Your task to perform on an android device: open chrome privacy settings Image 0: 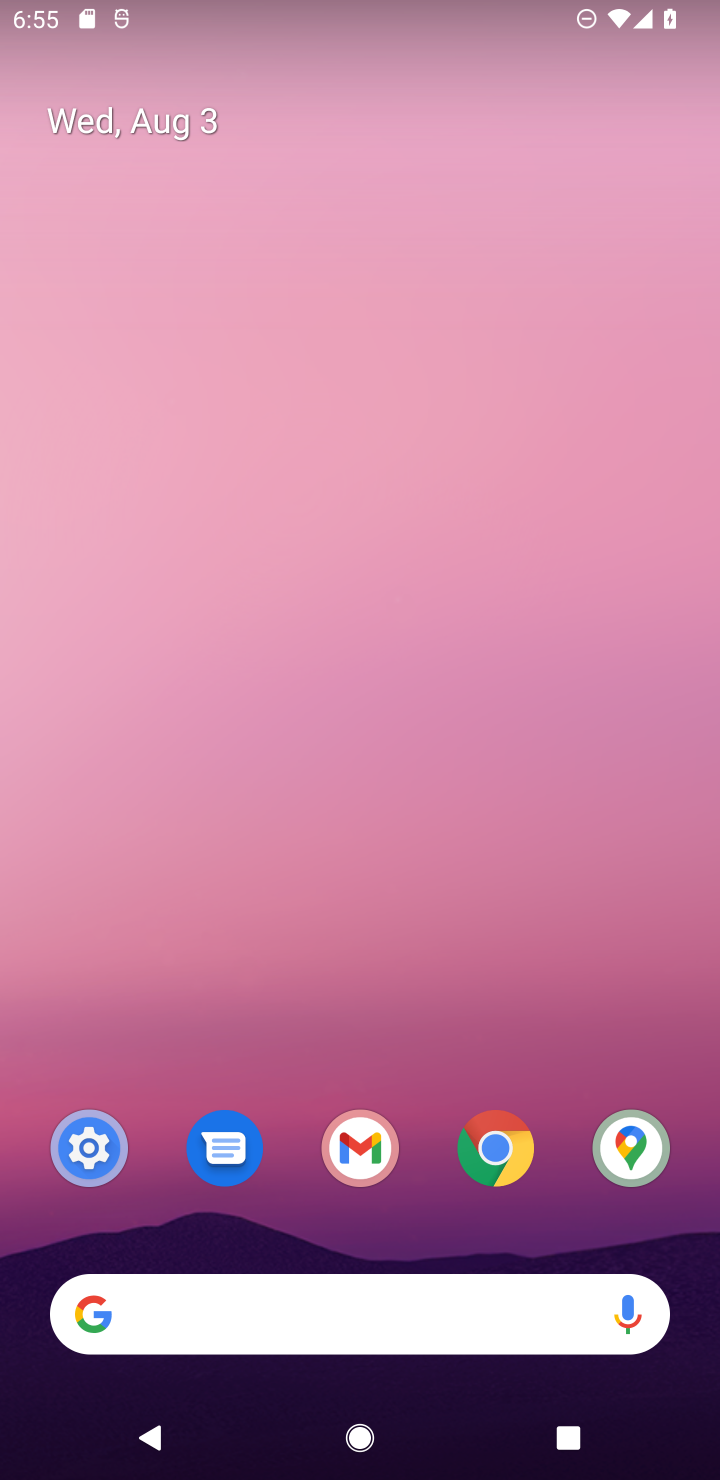
Step 0: click (490, 1134)
Your task to perform on an android device: open chrome privacy settings Image 1: 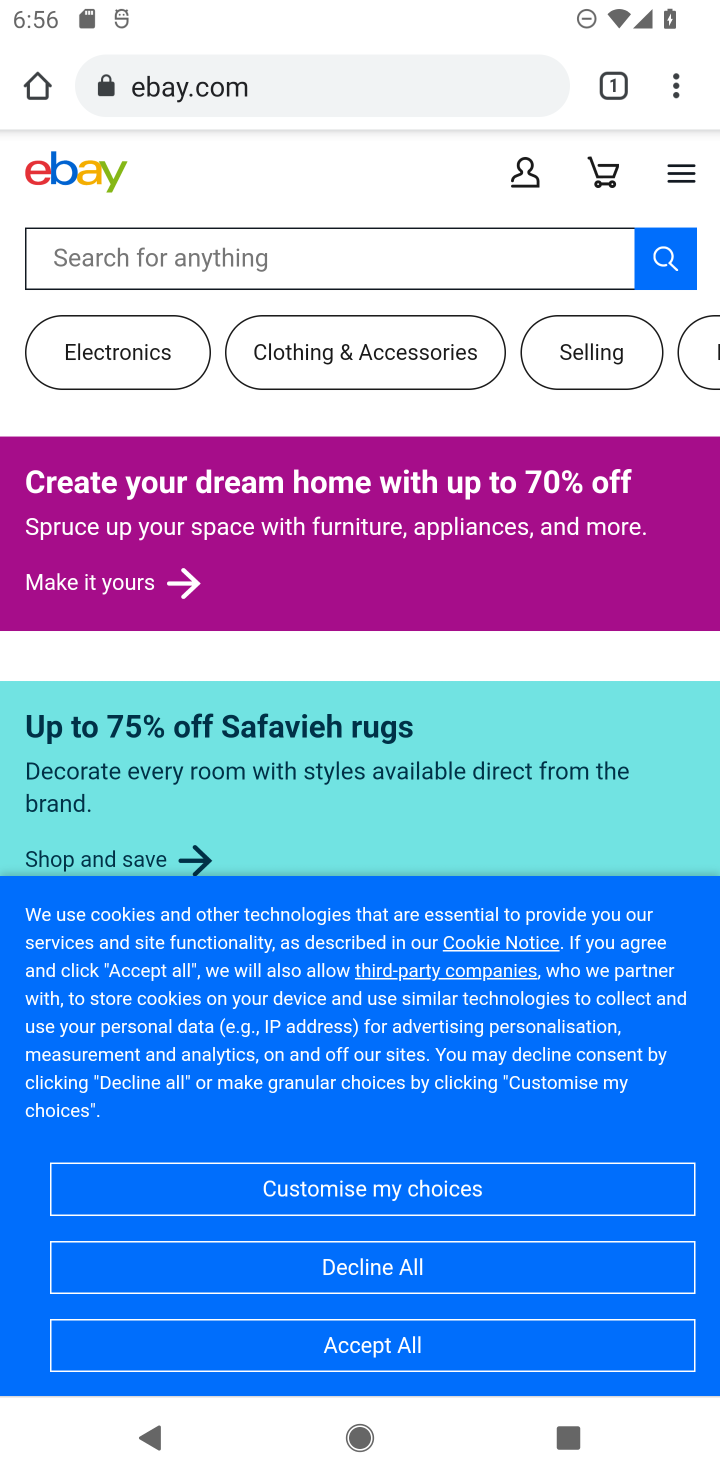
Step 1: click (669, 96)
Your task to perform on an android device: open chrome privacy settings Image 2: 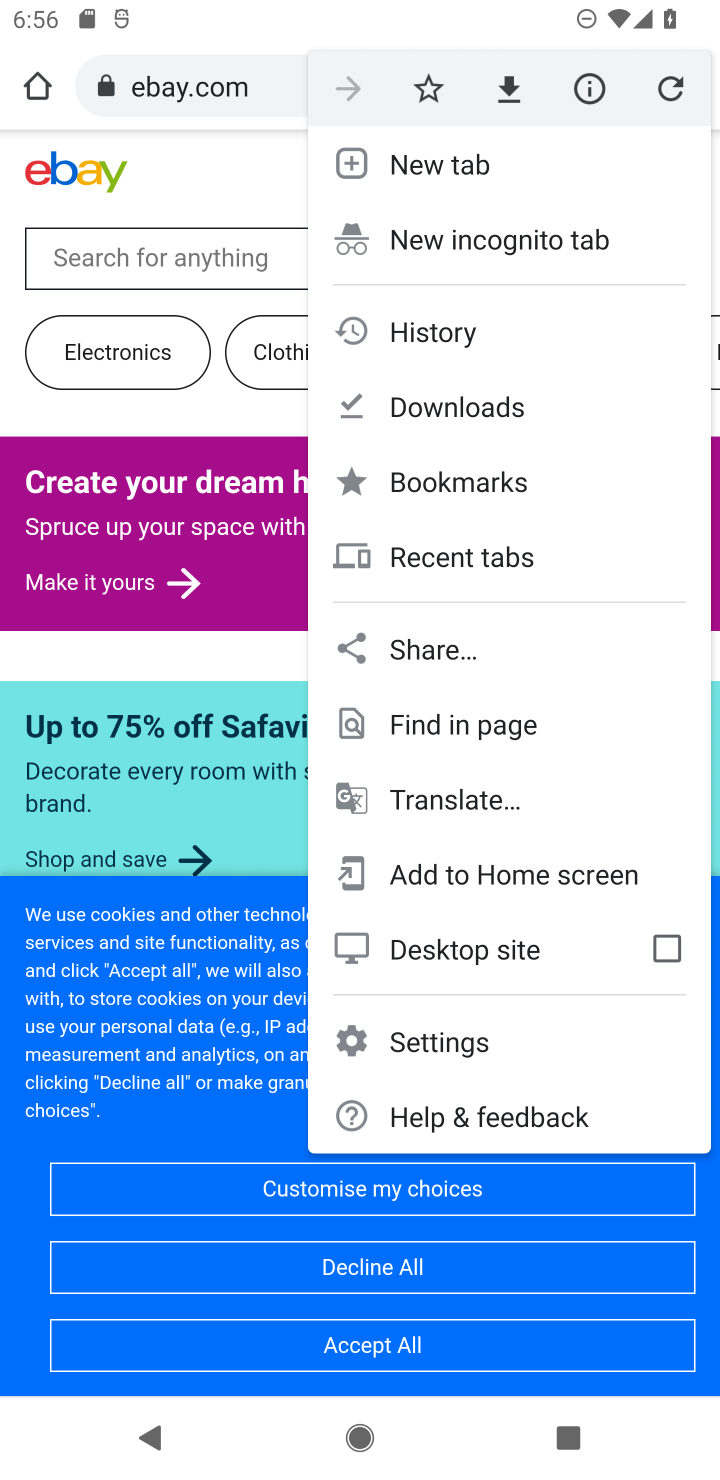
Step 2: click (448, 1046)
Your task to perform on an android device: open chrome privacy settings Image 3: 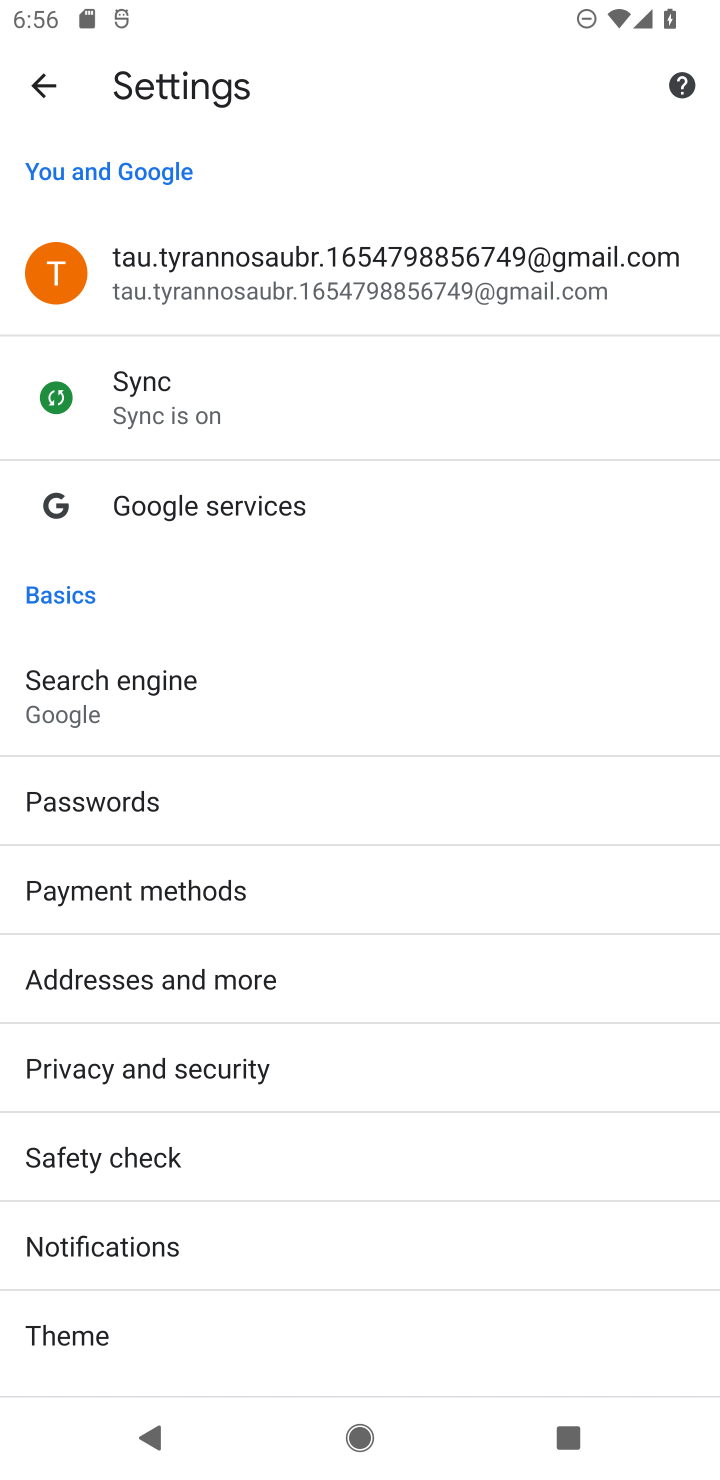
Step 3: click (240, 829)
Your task to perform on an android device: open chrome privacy settings Image 4: 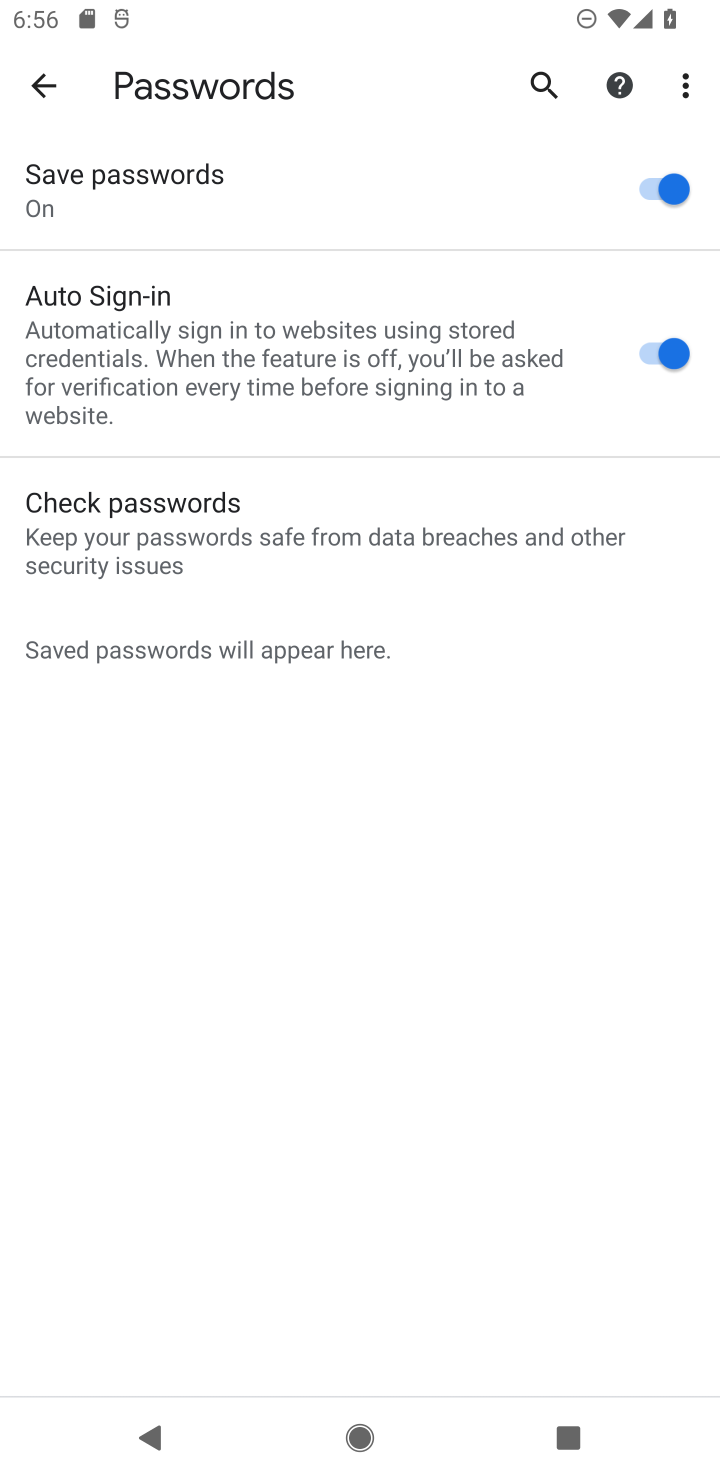
Step 4: click (37, 84)
Your task to perform on an android device: open chrome privacy settings Image 5: 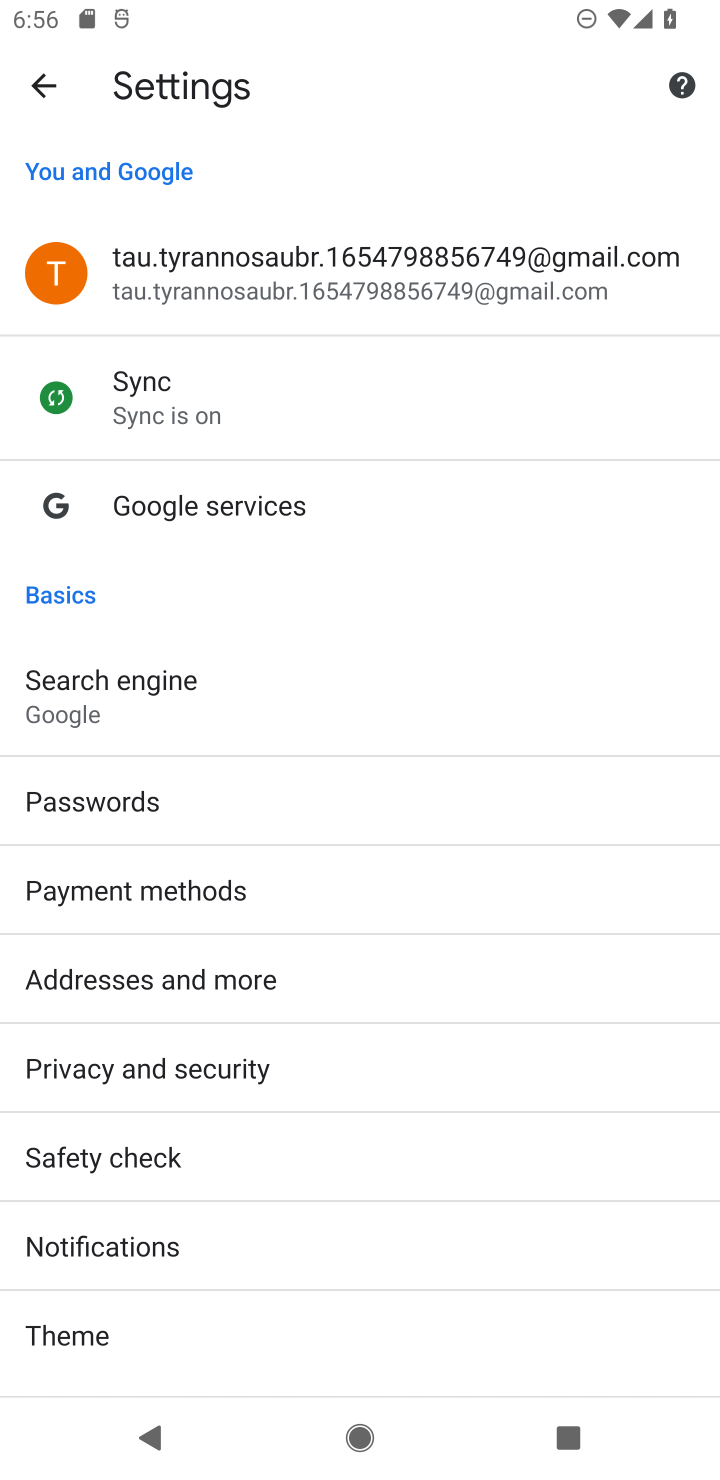
Step 5: drag from (267, 1010) to (330, 588)
Your task to perform on an android device: open chrome privacy settings Image 6: 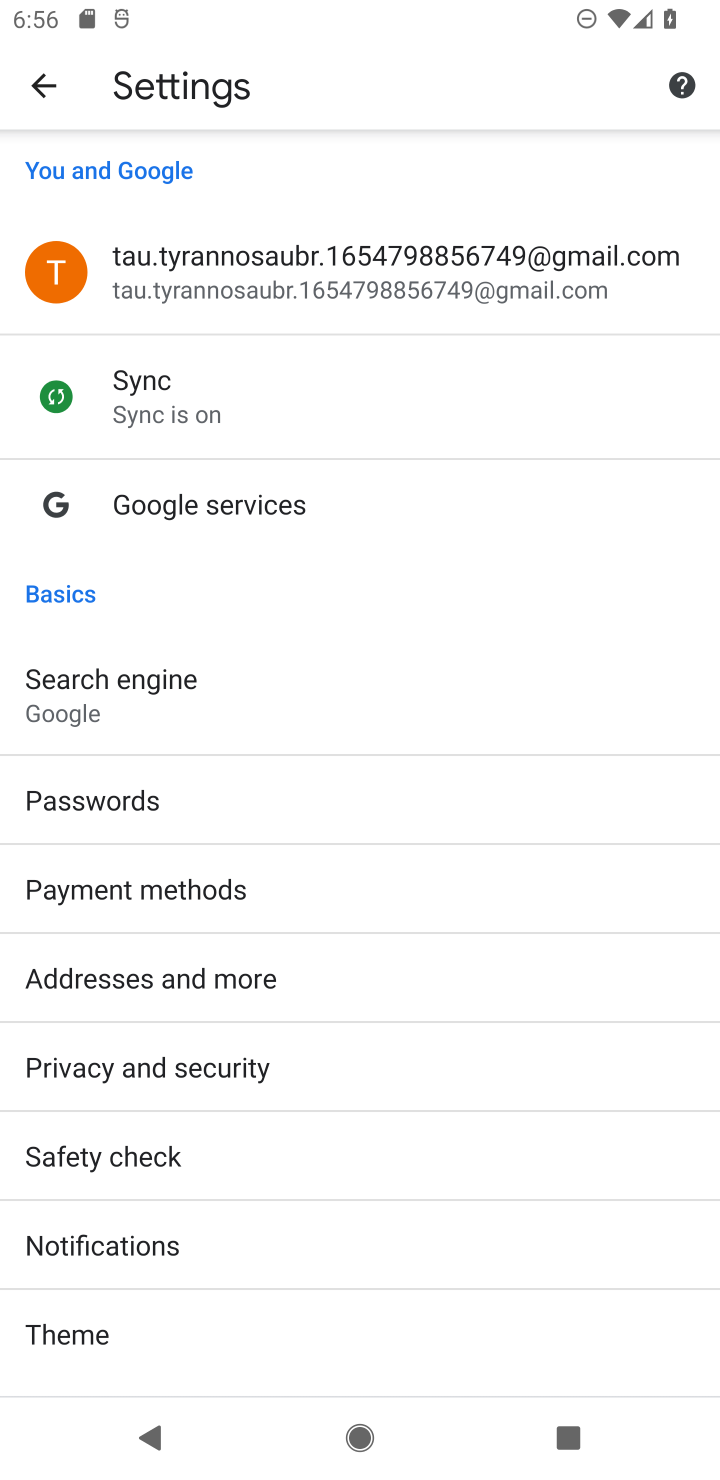
Step 6: click (161, 1065)
Your task to perform on an android device: open chrome privacy settings Image 7: 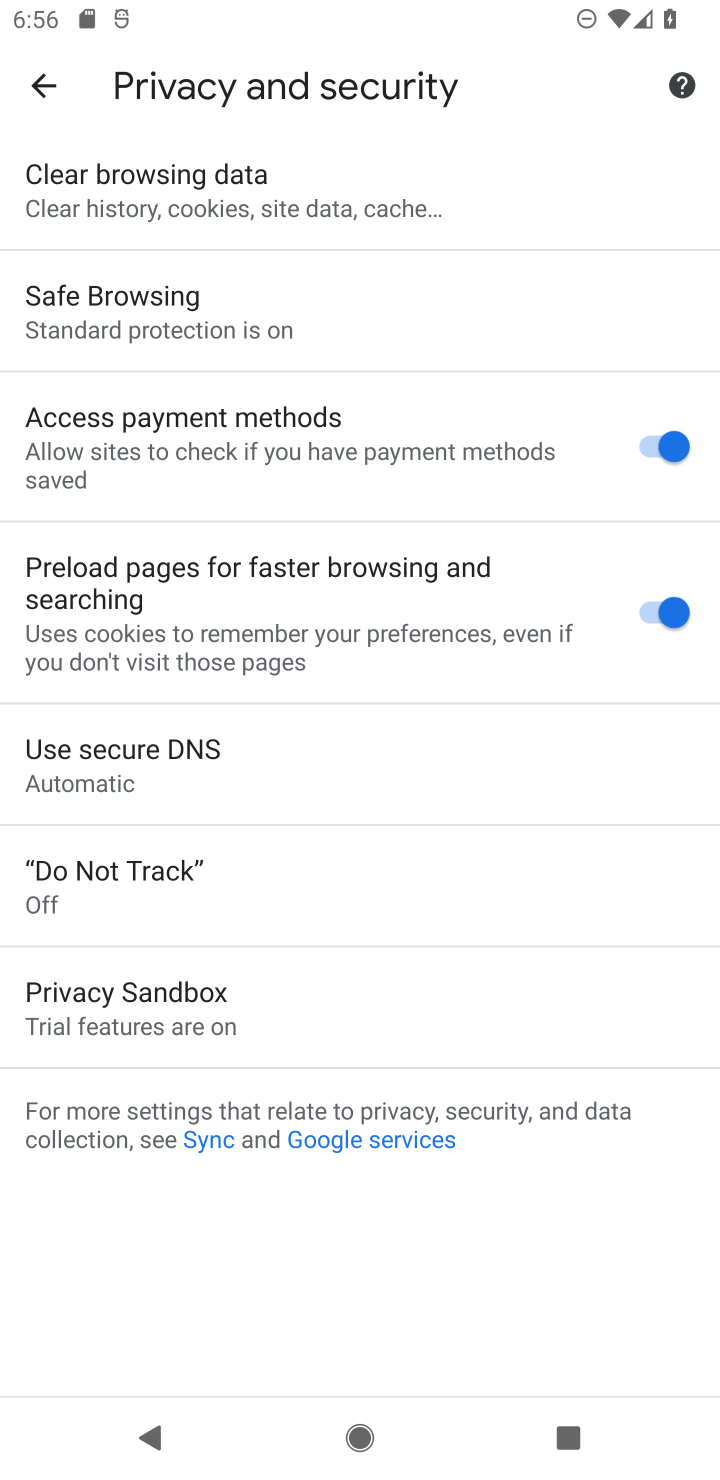
Step 7: task complete